Your task to perform on an android device: Open eBay Image 0: 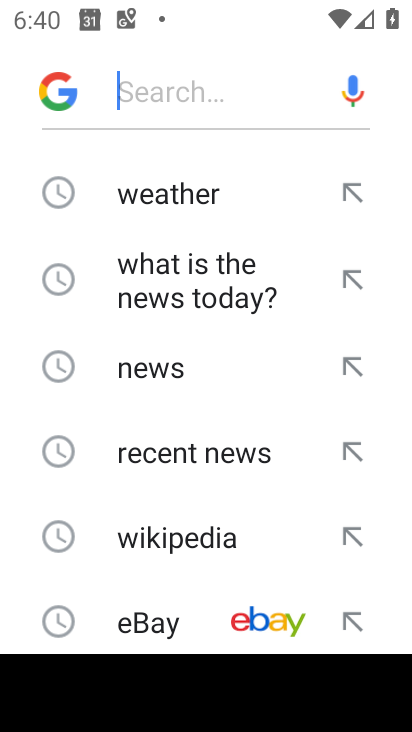
Step 0: click (156, 612)
Your task to perform on an android device: Open eBay Image 1: 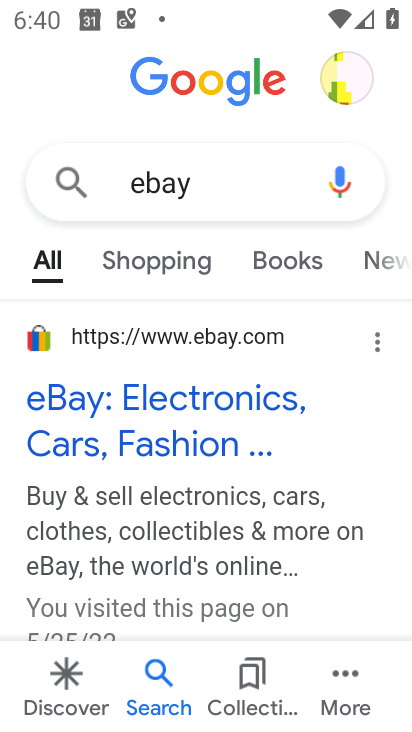
Step 1: click (116, 379)
Your task to perform on an android device: Open eBay Image 2: 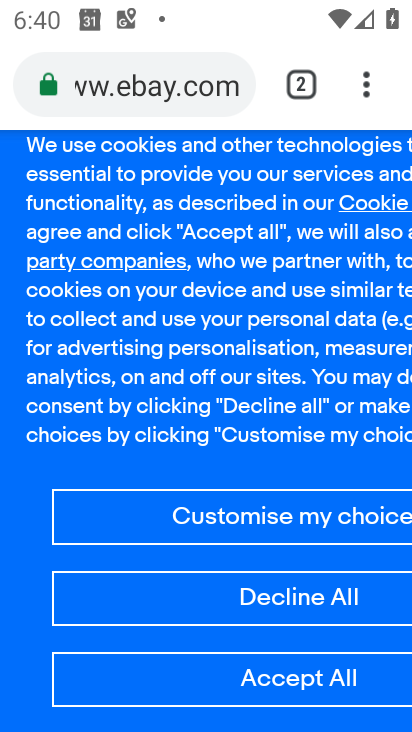
Step 2: task complete